Your task to perform on an android device: uninstall "VLC for Android" Image 0: 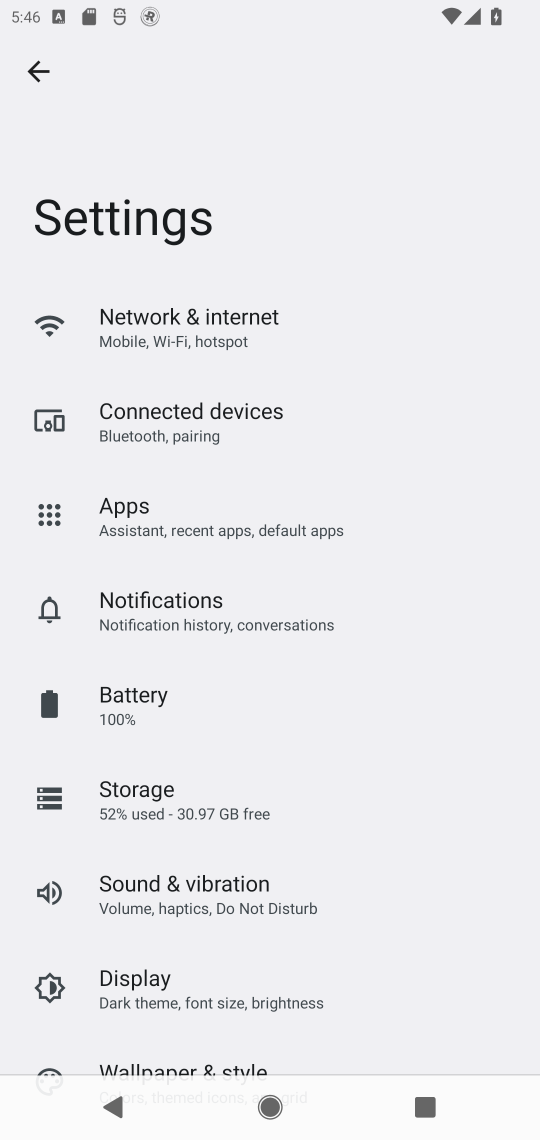
Step 0: press home button
Your task to perform on an android device: uninstall "VLC for Android" Image 1: 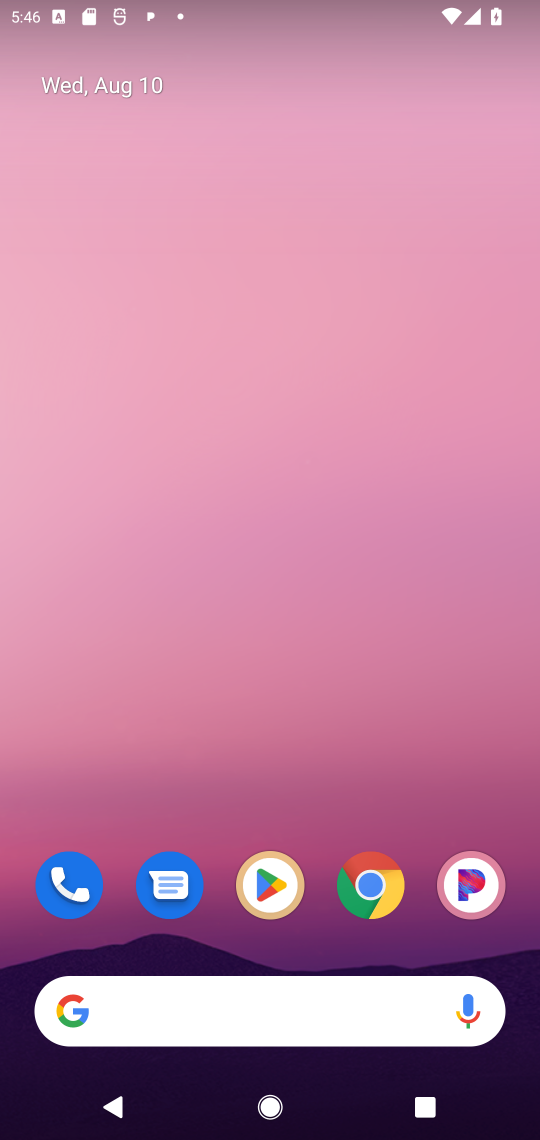
Step 1: click (274, 884)
Your task to perform on an android device: uninstall "VLC for Android" Image 2: 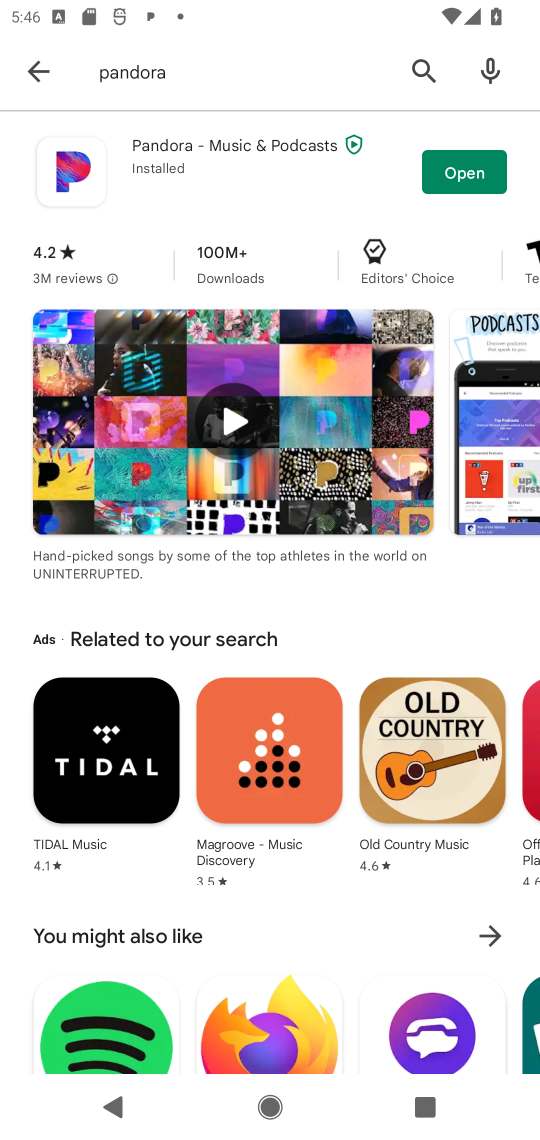
Step 2: click (422, 64)
Your task to perform on an android device: uninstall "VLC for Android" Image 3: 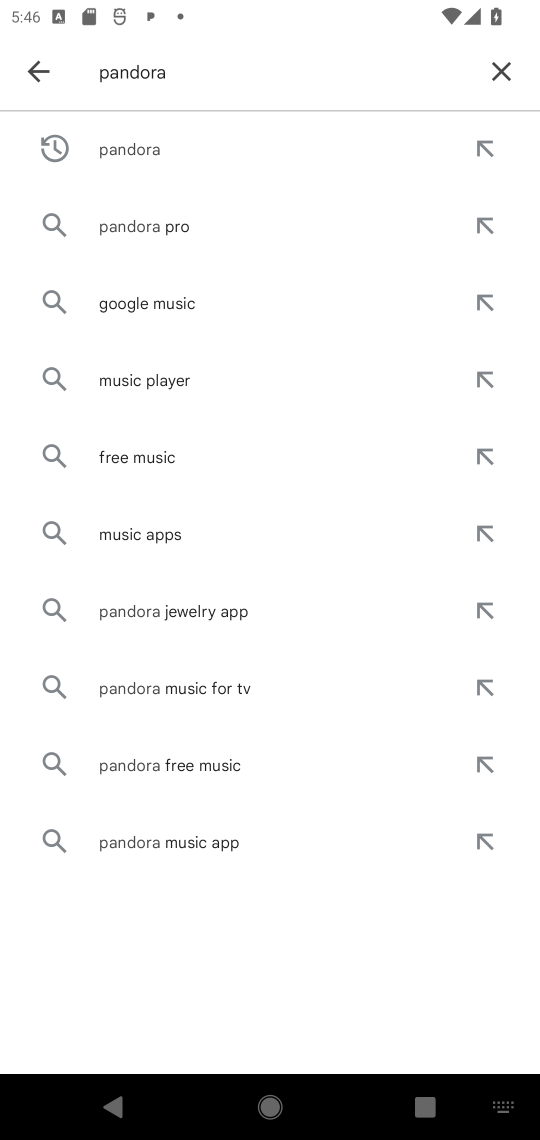
Step 3: click (494, 76)
Your task to perform on an android device: uninstall "VLC for Android" Image 4: 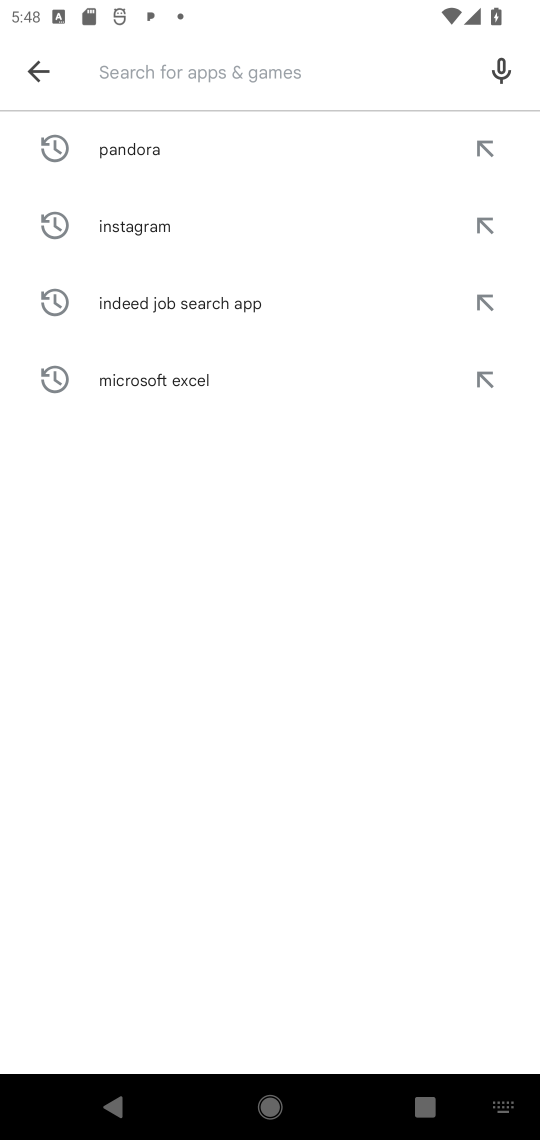
Step 4: click (233, 76)
Your task to perform on an android device: uninstall "VLC for Android" Image 5: 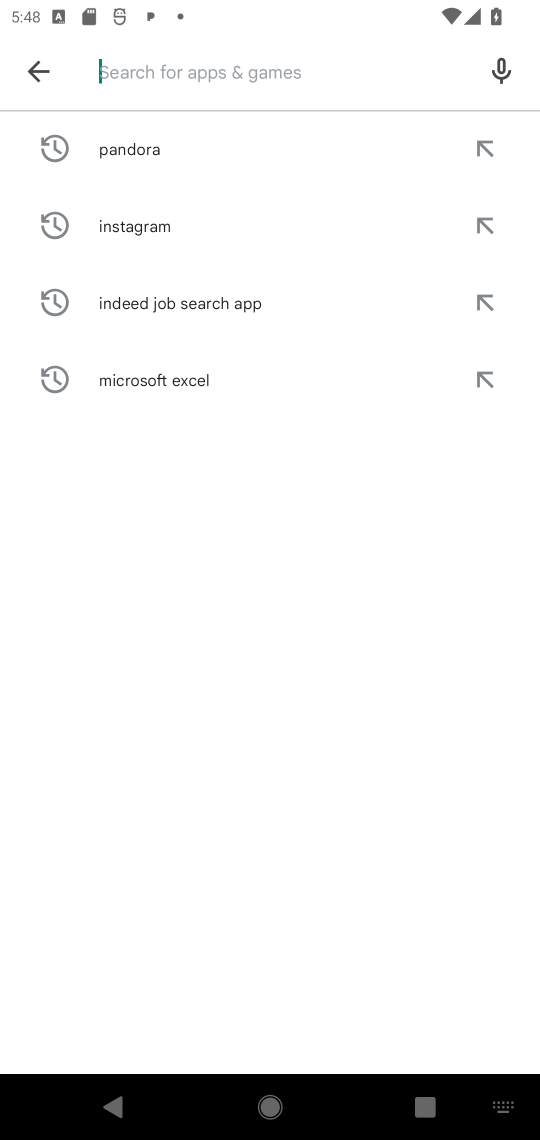
Step 5: click (186, 65)
Your task to perform on an android device: uninstall "VLC for Android" Image 6: 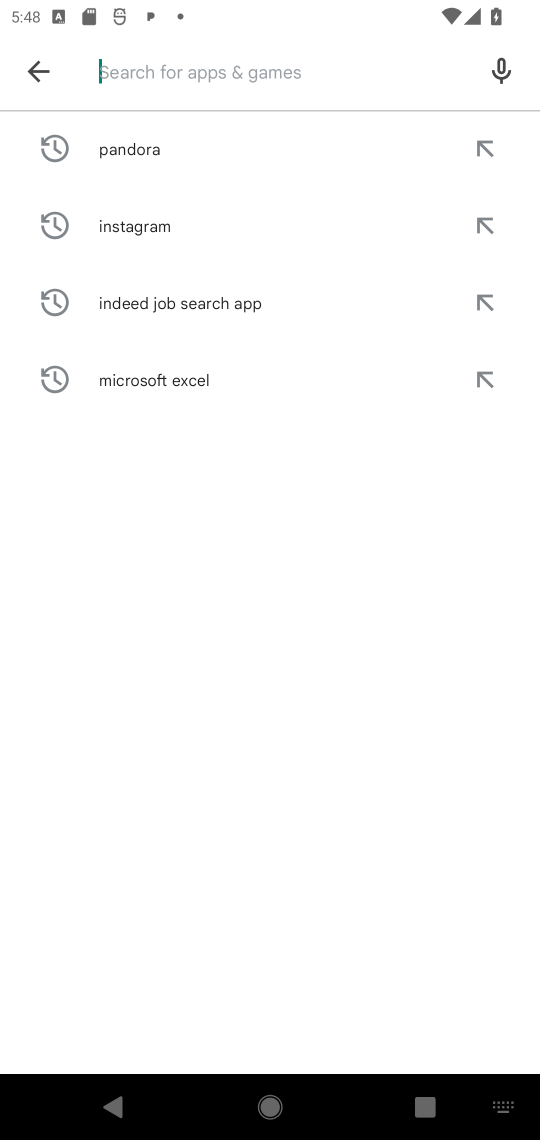
Step 6: type "vlc"
Your task to perform on an android device: uninstall "VLC for Android" Image 7: 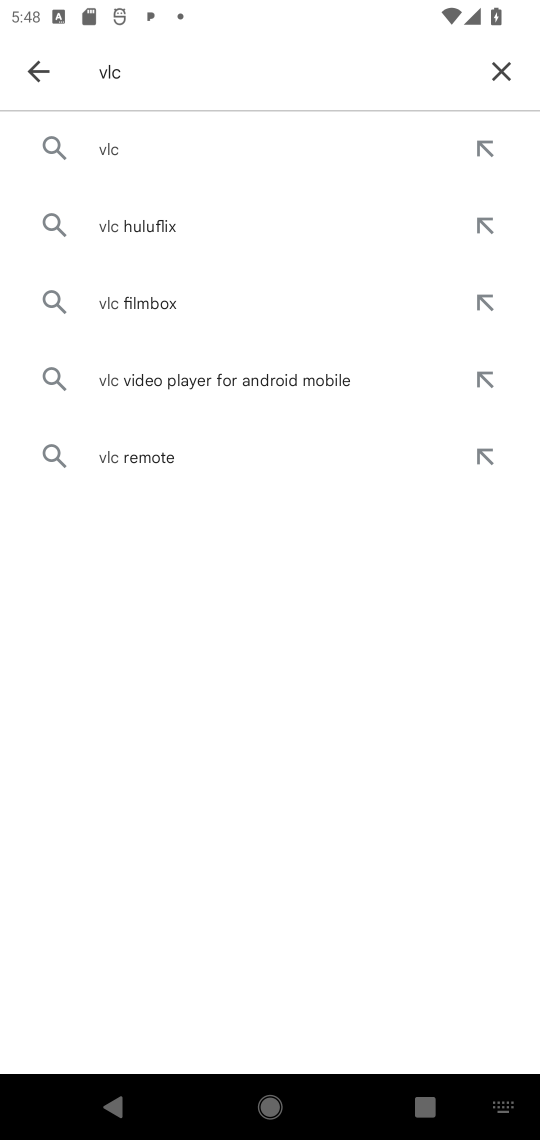
Step 7: click (197, 148)
Your task to perform on an android device: uninstall "VLC for Android" Image 8: 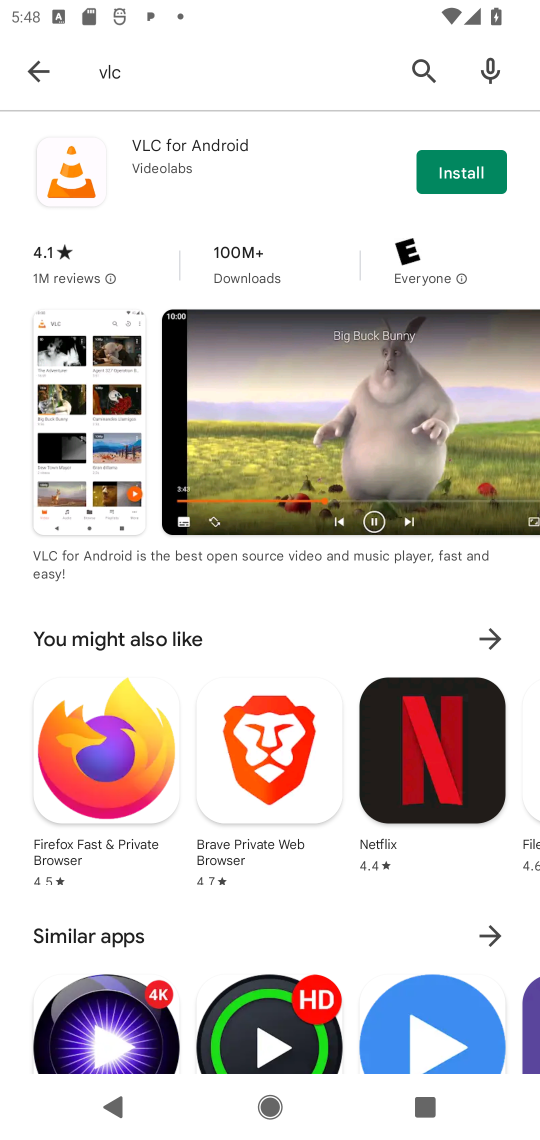
Step 8: task complete